Your task to perform on an android device: Go to display settings Image 0: 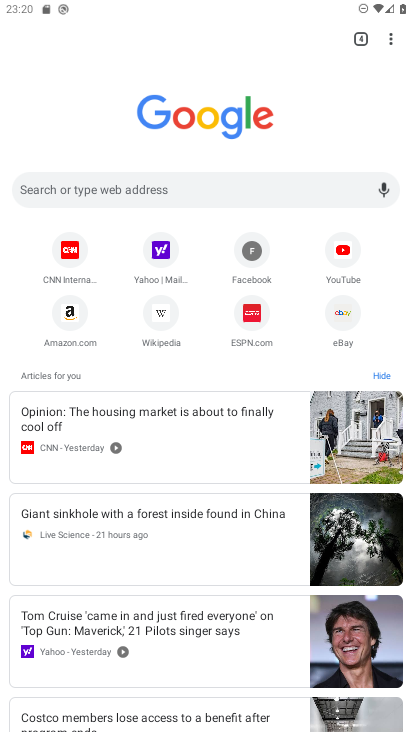
Step 0: press home button
Your task to perform on an android device: Go to display settings Image 1: 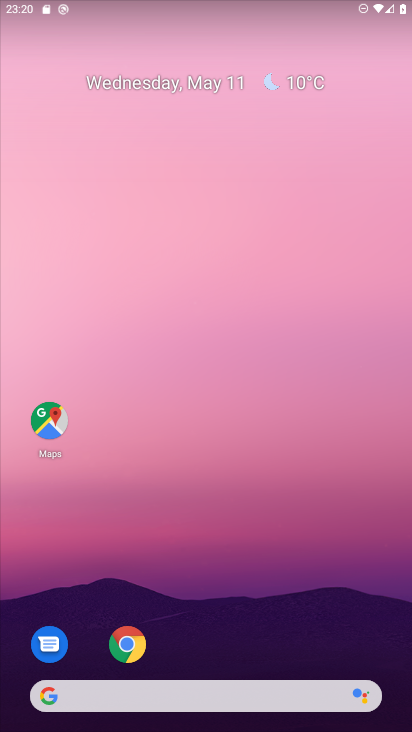
Step 1: click (245, 635)
Your task to perform on an android device: Go to display settings Image 2: 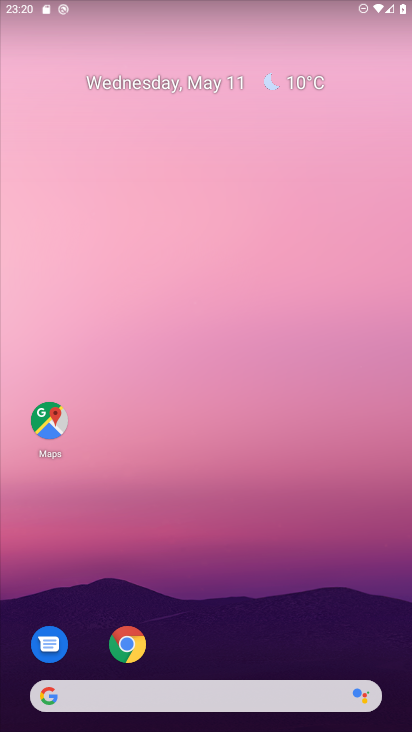
Step 2: drag from (245, 635) to (244, 5)
Your task to perform on an android device: Go to display settings Image 3: 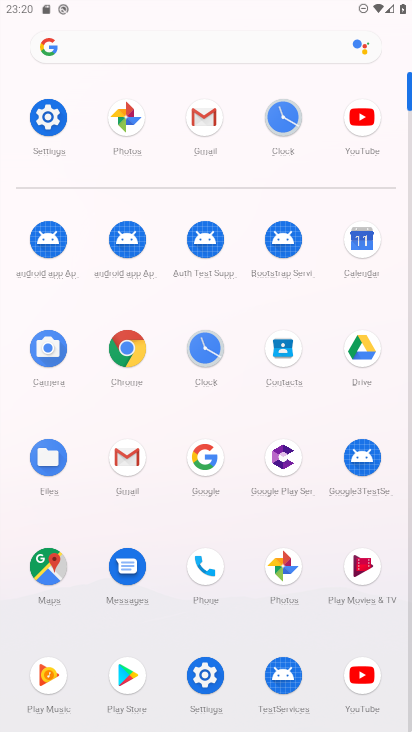
Step 3: click (53, 131)
Your task to perform on an android device: Go to display settings Image 4: 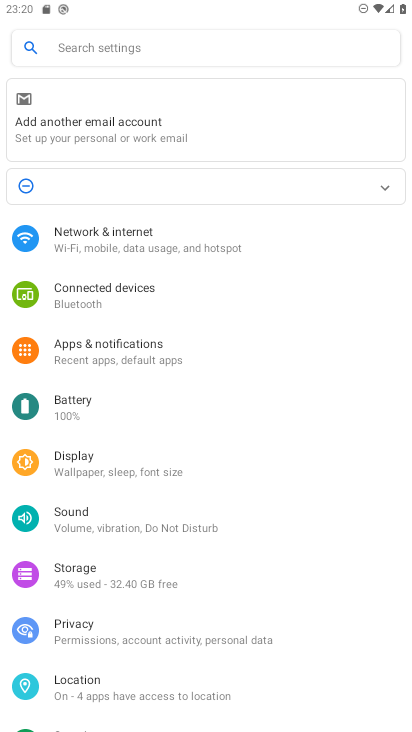
Step 4: click (63, 458)
Your task to perform on an android device: Go to display settings Image 5: 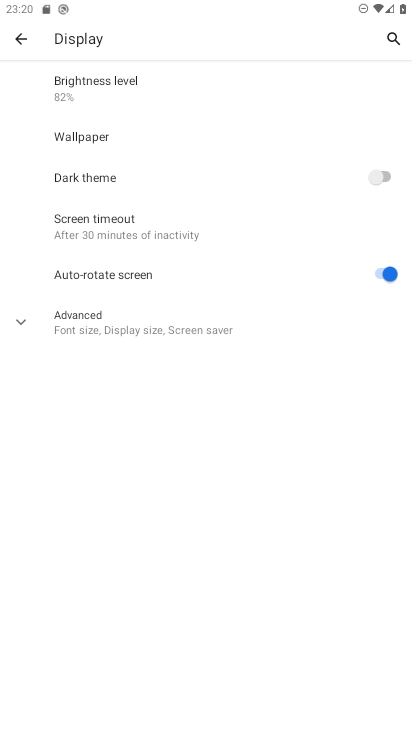
Step 5: task complete